Your task to perform on an android device: open a bookmark in the chrome app Image 0: 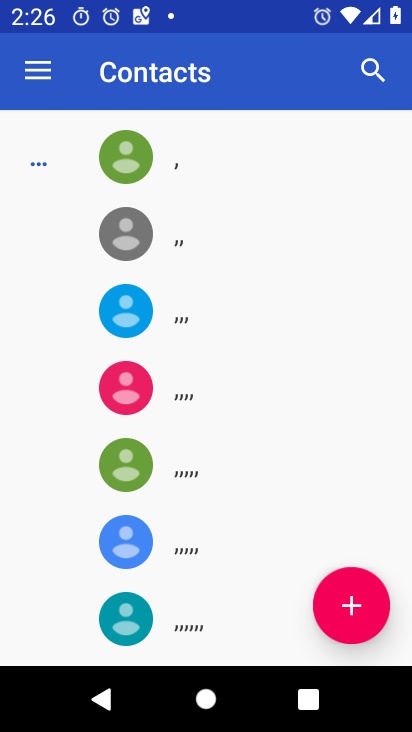
Step 0: press home button
Your task to perform on an android device: open a bookmark in the chrome app Image 1: 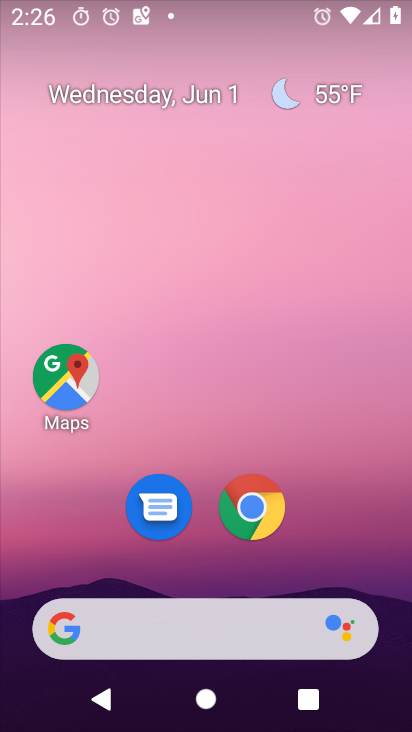
Step 1: click (251, 516)
Your task to perform on an android device: open a bookmark in the chrome app Image 2: 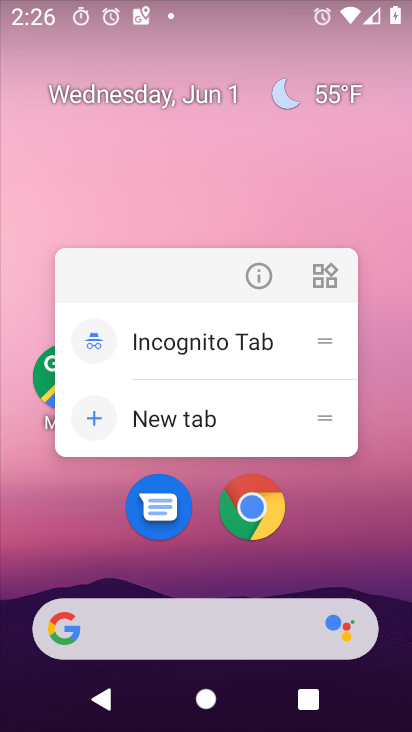
Step 2: click (251, 516)
Your task to perform on an android device: open a bookmark in the chrome app Image 3: 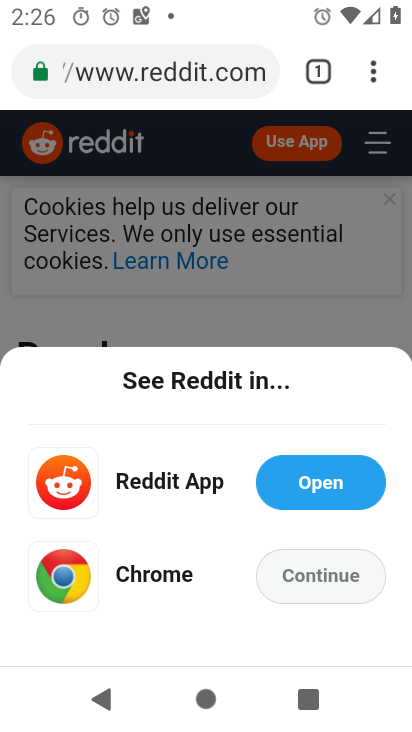
Step 3: drag from (376, 65) to (217, 260)
Your task to perform on an android device: open a bookmark in the chrome app Image 4: 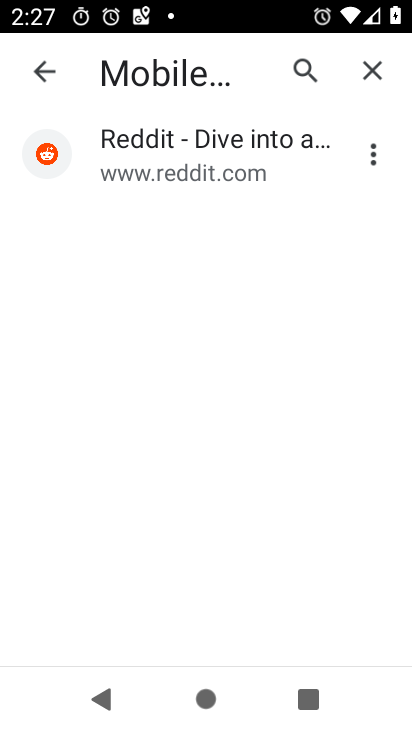
Step 4: click (179, 173)
Your task to perform on an android device: open a bookmark in the chrome app Image 5: 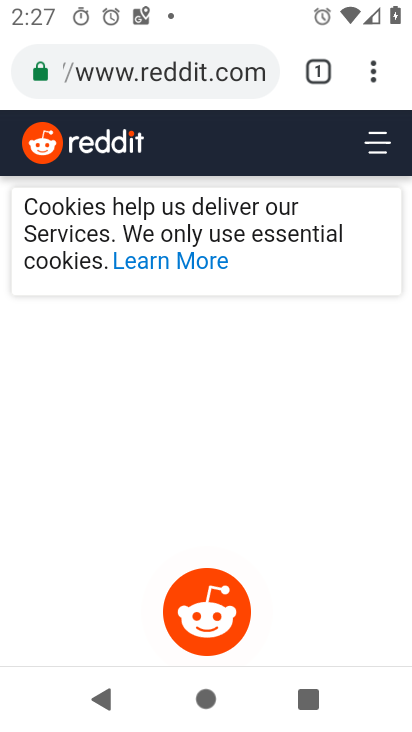
Step 5: task complete